Your task to perform on an android device: Open Android settings Image 0: 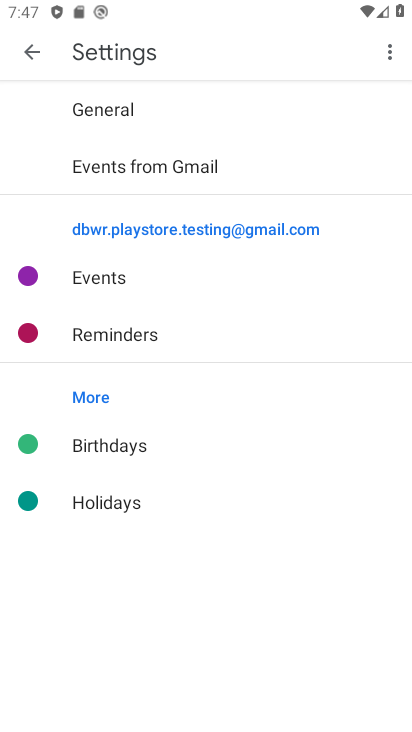
Step 0: press home button
Your task to perform on an android device: Open Android settings Image 1: 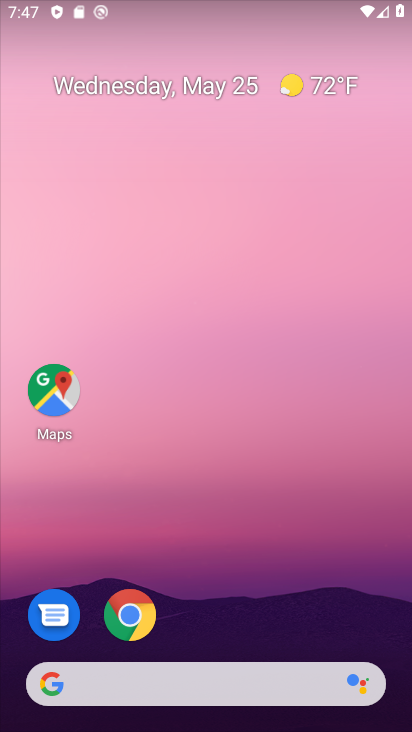
Step 1: drag from (282, 596) to (245, 12)
Your task to perform on an android device: Open Android settings Image 2: 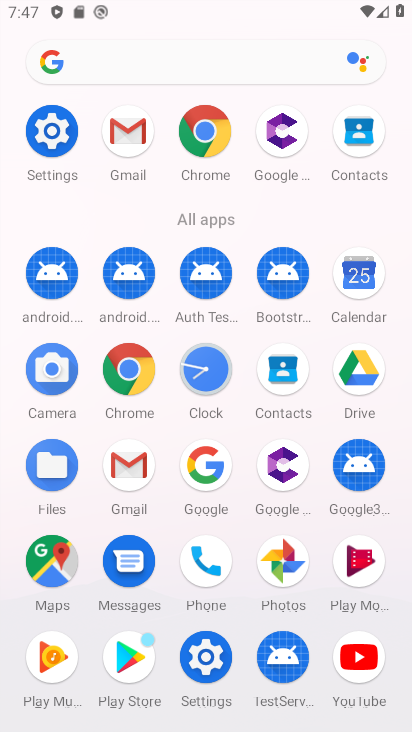
Step 2: click (53, 127)
Your task to perform on an android device: Open Android settings Image 3: 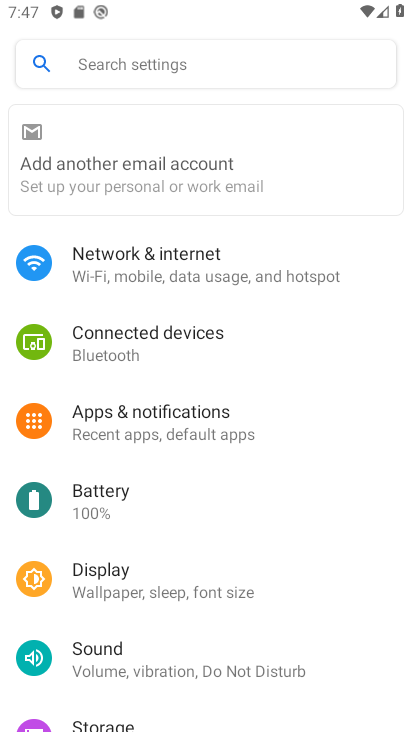
Step 3: drag from (213, 584) to (237, 99)
Your task to perform on an android device: Open Android settings Image 4: 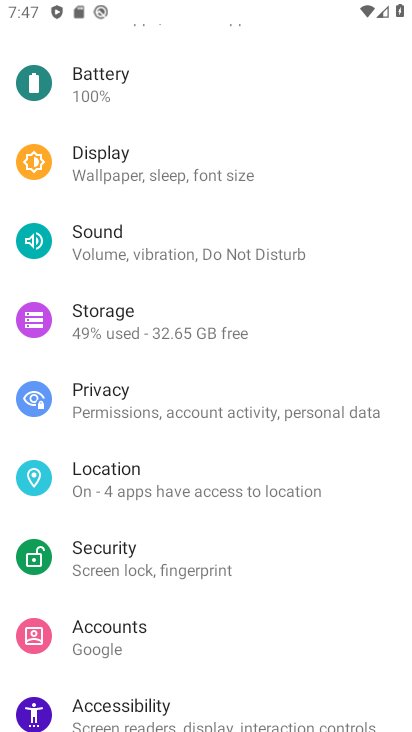
Step 4: drag from (216, 526) to (252, 60)
Your task to perform on an android device: Open Android settings Image 5: 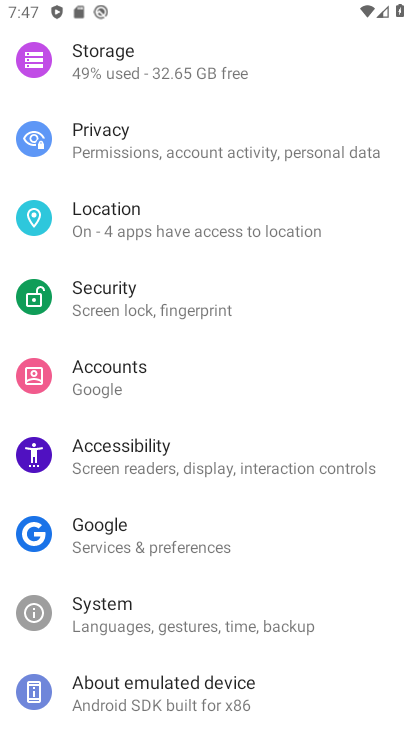
Step 5: click (217, 687)
Your task to perform on an android device: Open Android settings Image 6: 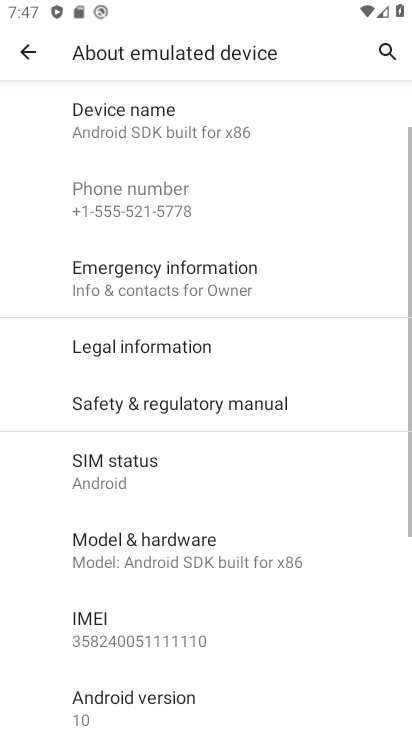
Step 6: task complete